Your task to perform on an android device: Do I have any events tomorrow? Image 0: 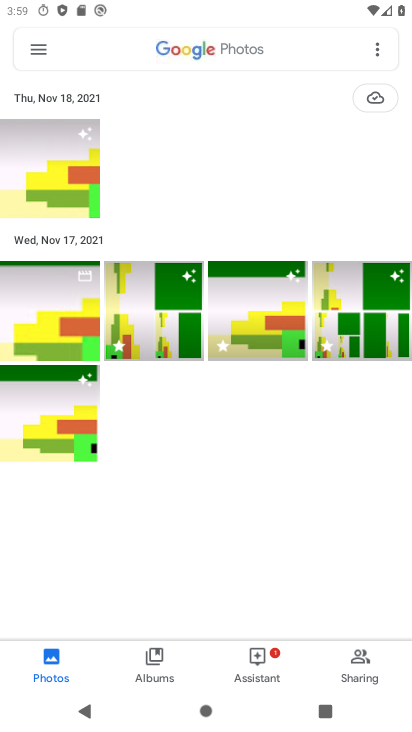
Step 0: press home button
Your task to perform on an android device: Do I have any events tomorrow? Image 1: 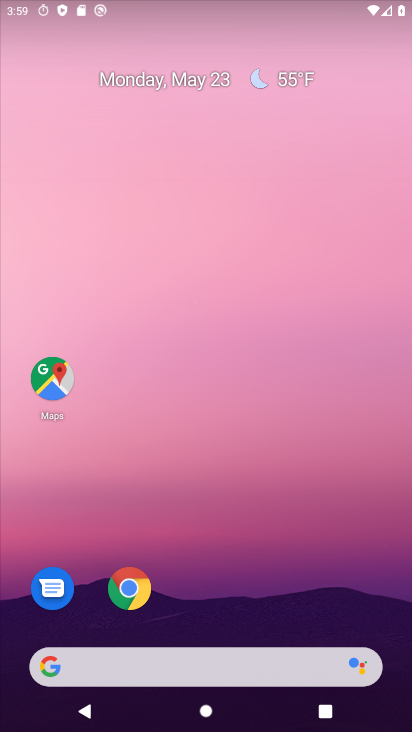
Step 1: drag from (244, 509) to (274, 88)
Your task to perform on an android device: Do I have any events tomorrow? Image 2: 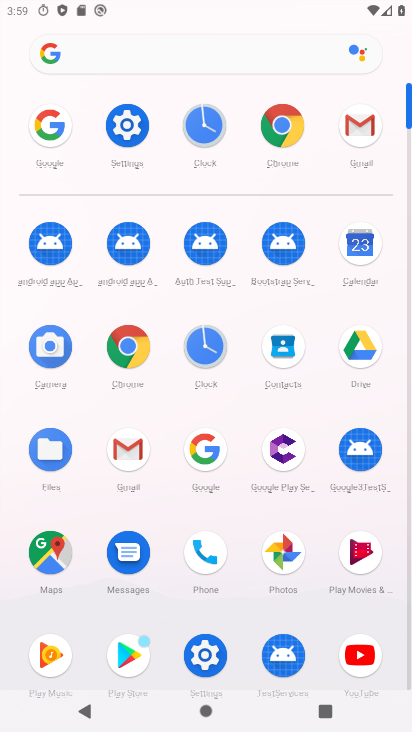
Step 2: click (361, 247)
Your task to perform on an android device: Do I have any events tomorrow? Image 3: 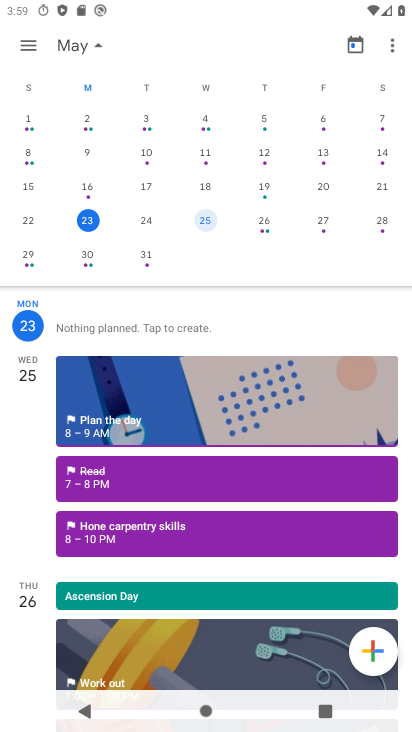
Step 3: click (144, 221)
Your task to perform on an android device: Do I have any events tomorrow? Image 4: 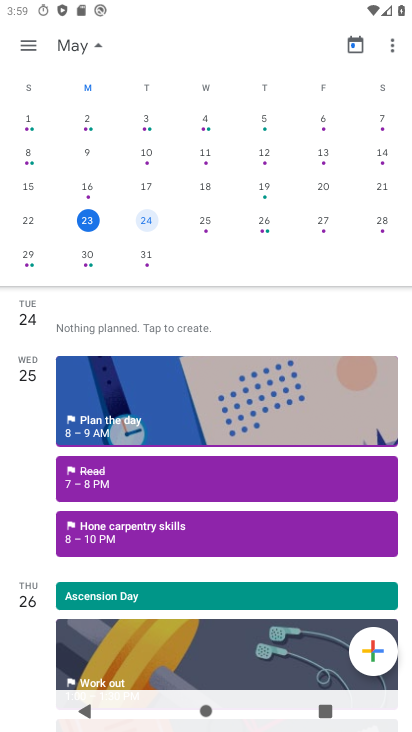
Step 4: task complete